Your task to perform on an android device: show emergency info Image 0: 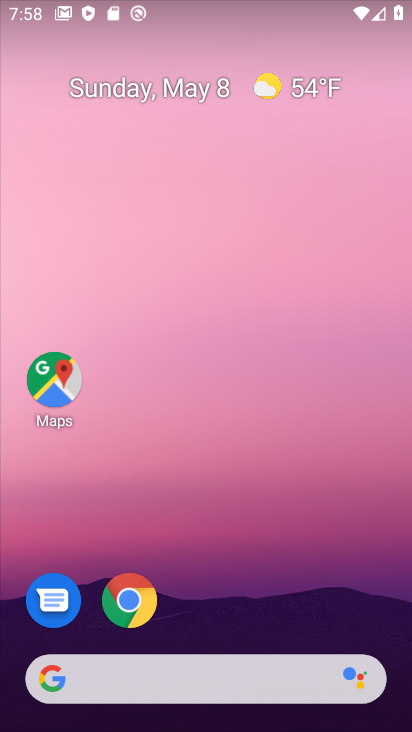
Step 0: drag from (183, 616) to (168, 216)
Your task to perform on an android device: show emergency info Image 1: 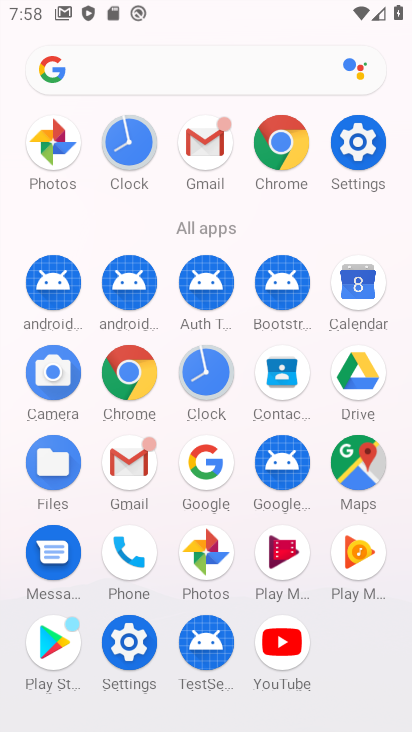
Step 1: click (368, 151)
Your task to perform on an android device: show emergency info Image 2: 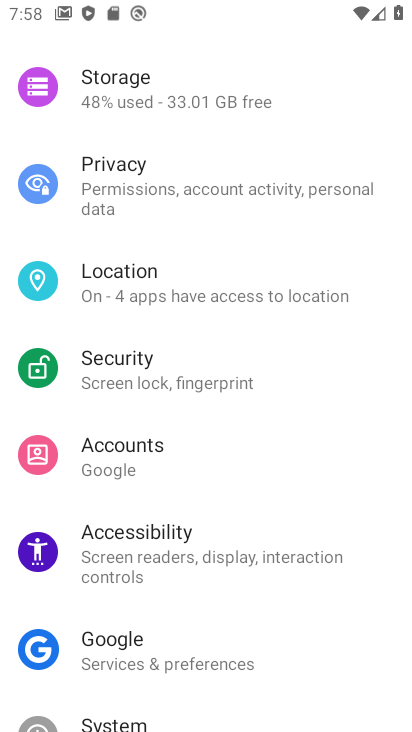
Step 2: drag from (163, 652) to (196, 271)
Your task to perform on an android device: show emergency info Image 3: 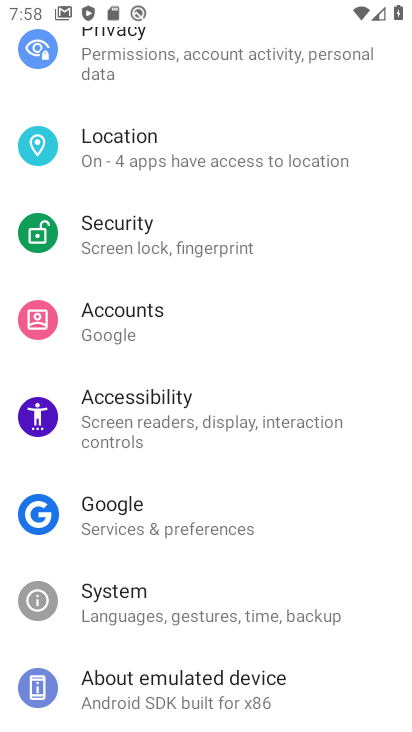
Step 3: click (222, 685)
Your task to perform on an android device: show emergency info Image 4: 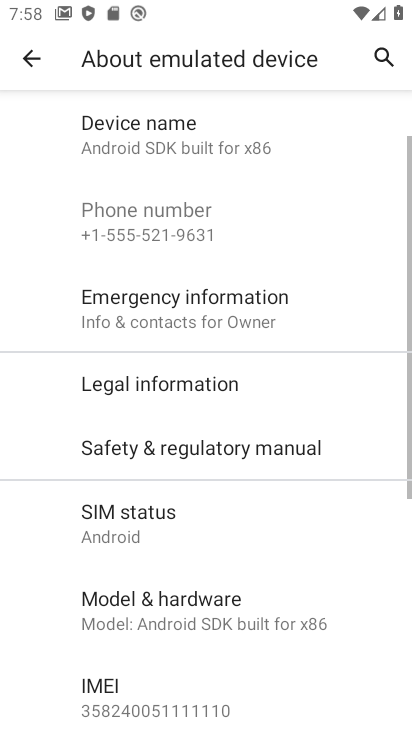
Step 4: click (133, 324)
Your task to perform on an android device: show emergency info Image 5: 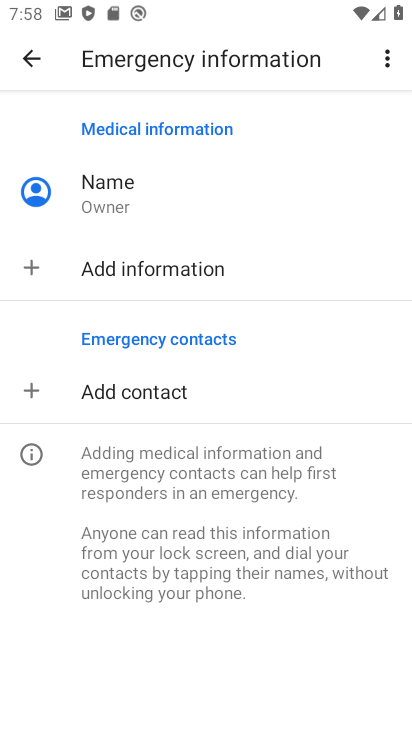
Step 5: task complete